Your task to perform on an android device: turn on sleep mode Image 0: 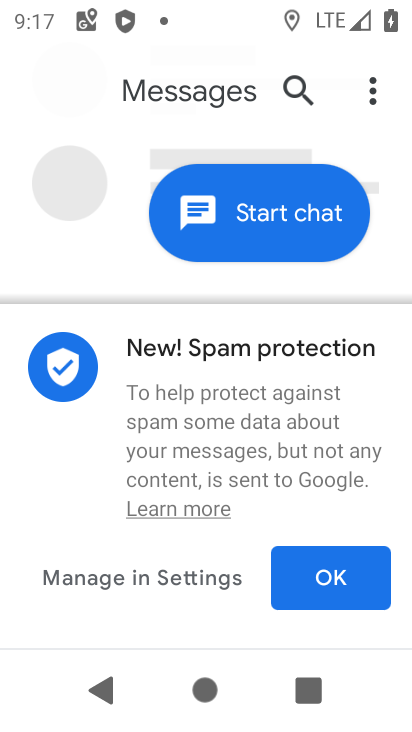
Step 0: press home button
Your task to perform on an android device: turn on sleep mode Image 1: 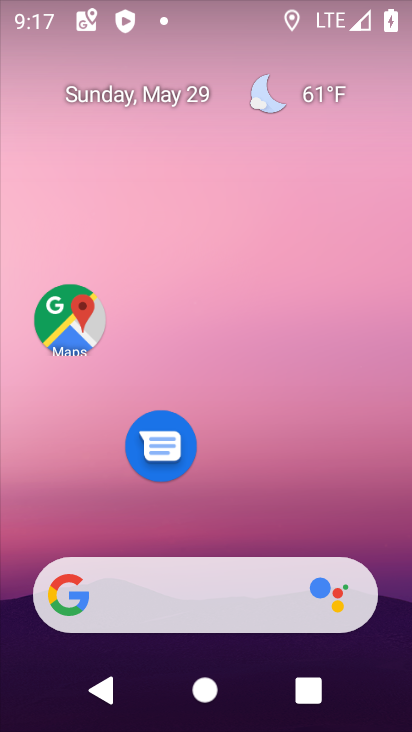
Step 1: drag from (234, 510) to (242, 185)
Your task to perform on an android device: turn on sleep mode Image 2: 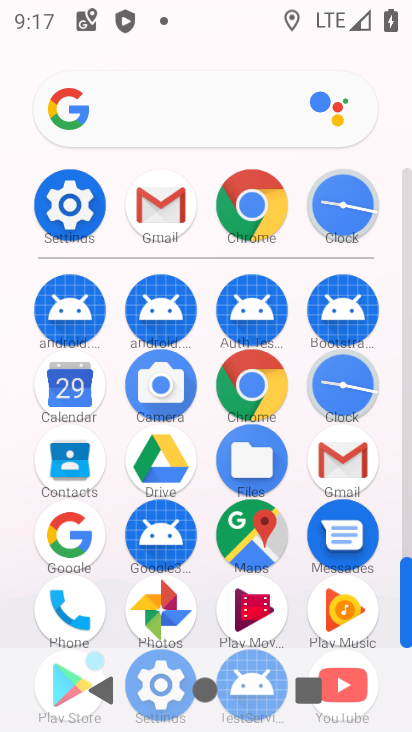
Step 2: click (68, 213)
Your task to perform on an android device: turn on sleep mode Image 3: 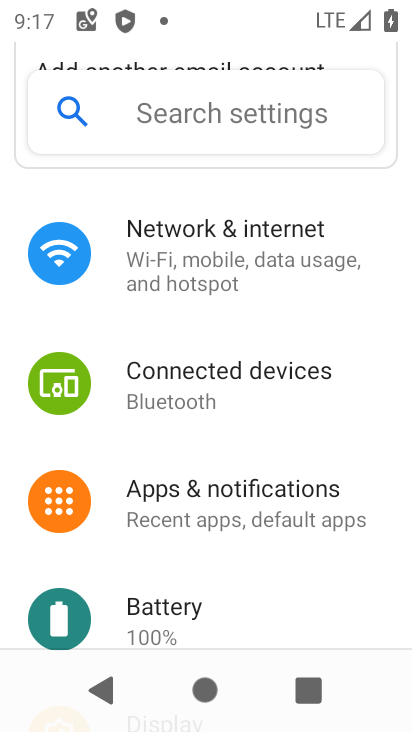
Step 3: drag from (231, 304) to (252, 273)
Your task to perform on an android device: turn on sleep mode Image 4: 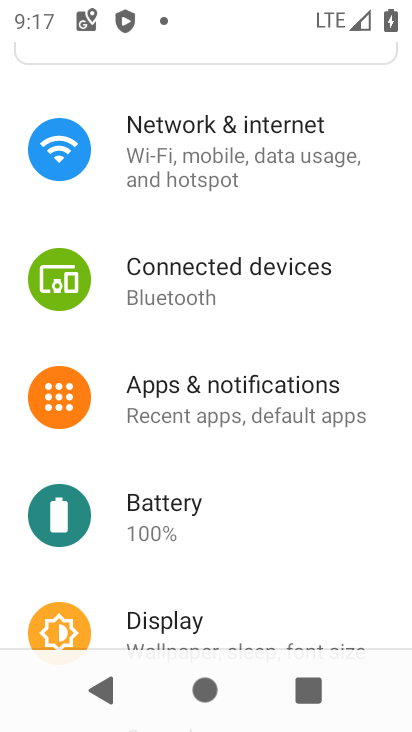
Step 4: drag from (259, 559) to (278, 289)
Your task to perform on an android device: turn on sleep mode Image 5: 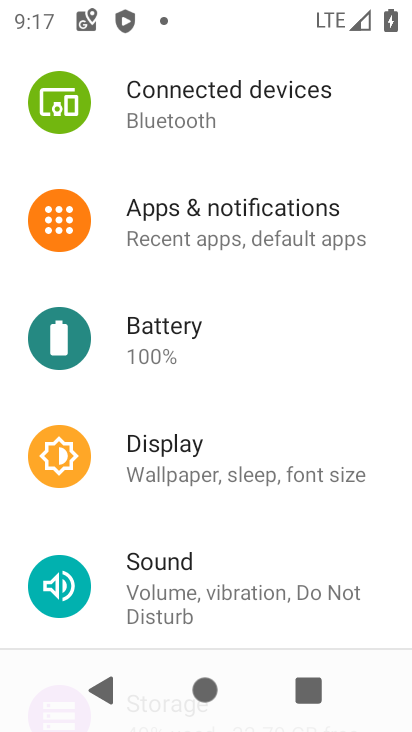
Step 5: click (233, 463)
Your task to perform on an android device: turn on sleep mode Image 6: 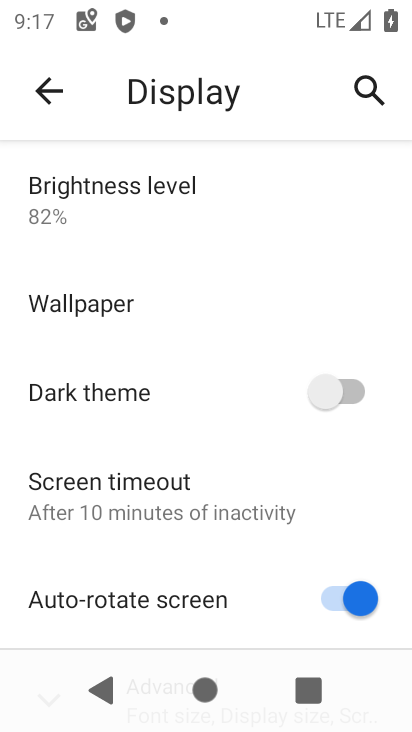
Step 6: click (213, 488)
Your task to perform on an android device: turn on sleep mode Image 7: 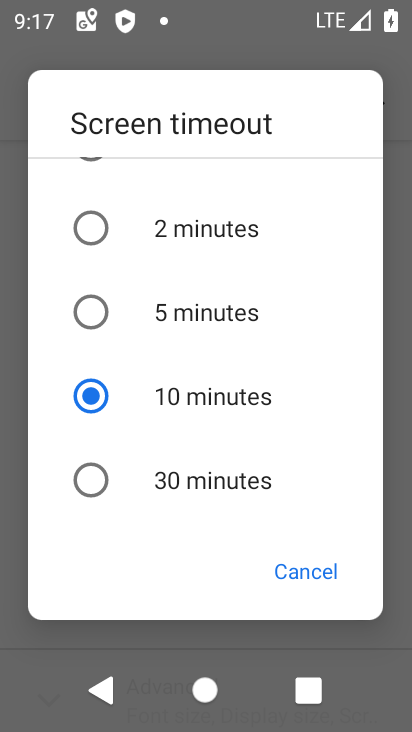
Step 7: click (164, 304)
Your task to perform on an android device: turn on sleep mode Image 8: 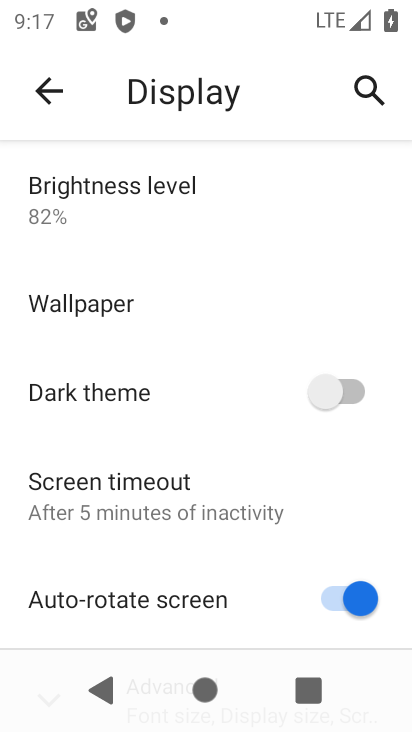
Step 8: task complete